Your task to perform on an android device: toggle priority inbox in the gmail app Image 0: 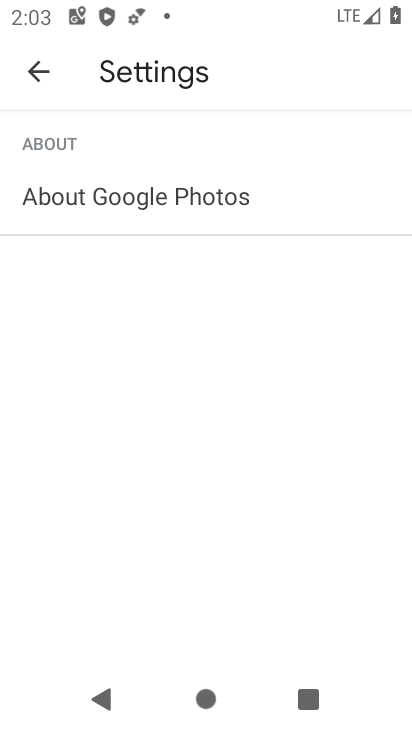
Step 0: press home button
Your task to perform on an android device: toggle priority inbox in the gmail app Image 1: 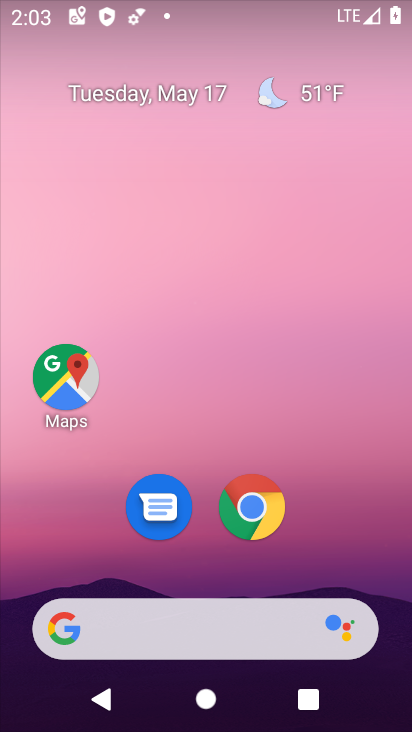
Step 1: drag from (205, 576) to (214, 50)
Your task to perform on an android device: toggle priority inbox in the gmail app Image 2: 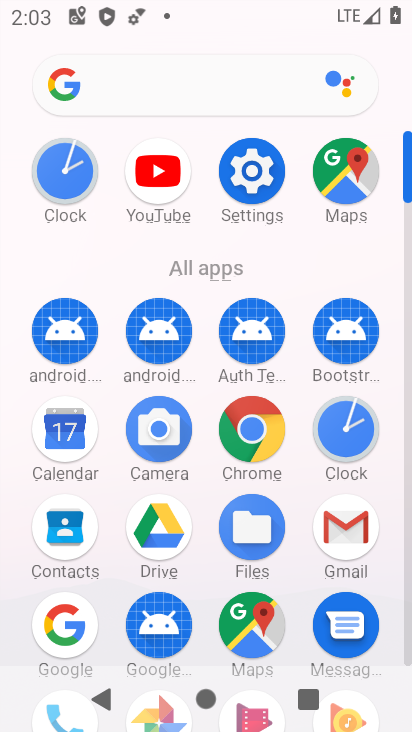
Step 2: click (357, 541)
Your task to perform on an android device: toggle priority inbox in the gmail app Image 3: 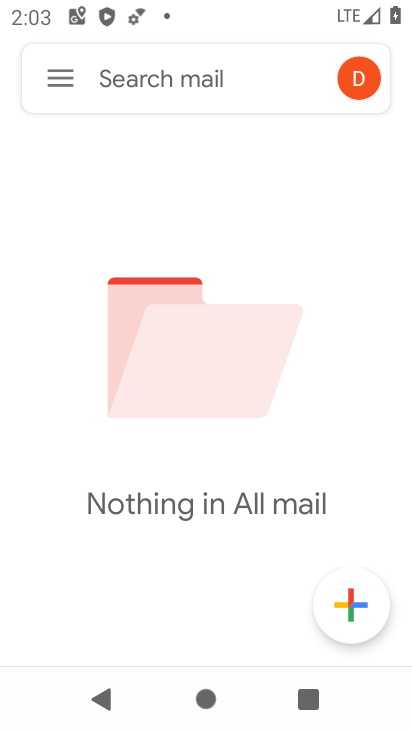
Step 3: click (70, 74)
Your task to perform on an android device: toggle priority inbox in the gmail app Image 4: 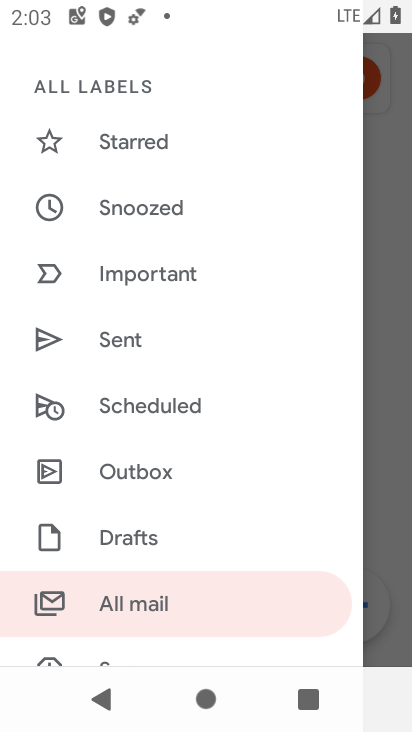
Step 4: drag from (164, 612) to (161, 173)
Your task to perform on an android device: toggle priority inbox in the gmail app Image 5: 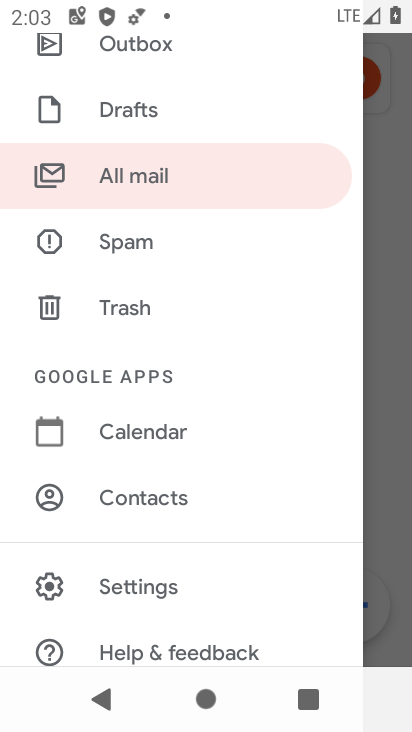
Step 5: click (128, 575)
Your task to perform on an android device: toggle priority inbox in the gmail app Image 6: 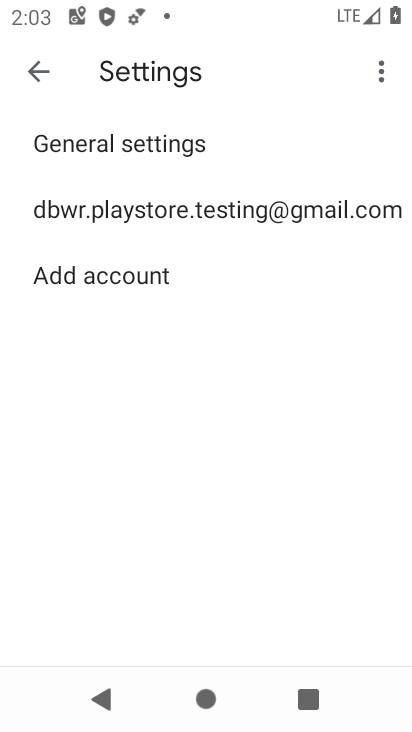
Step 6: click (342, 184)
Your task to perform on an android device: toggle priority inbox in the gmail app Image 7: 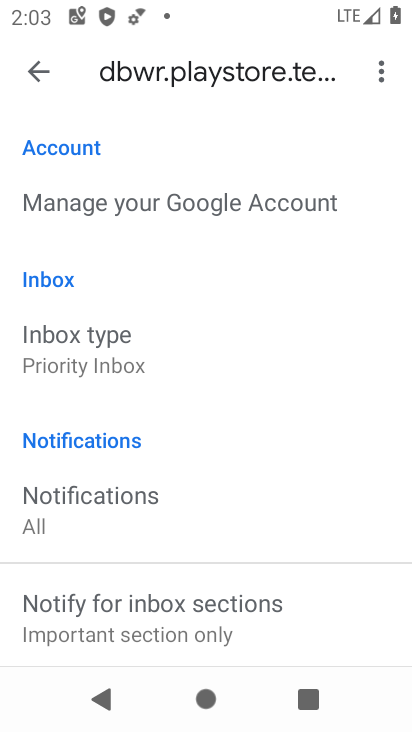
Step 7: drag from (250, 552) to (280, 310)
Your task to perform on an android device: toggle priority inbox in the gmail app Image 8: 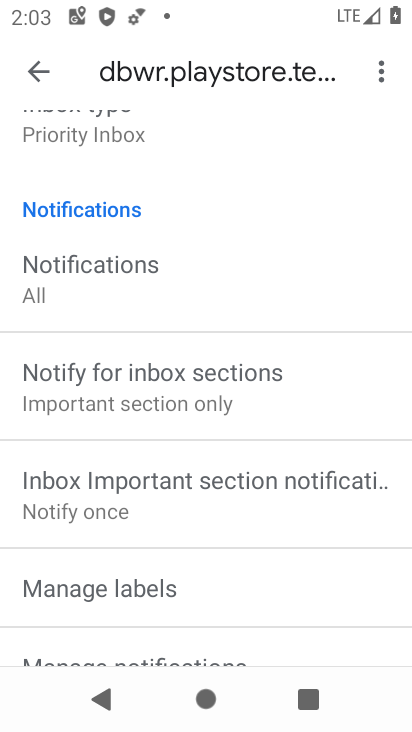
Step 8: drag from (283, 311) to (318, 379)
Your task to perform on an android device: toggle priority inbox in the gmail app Image 9: 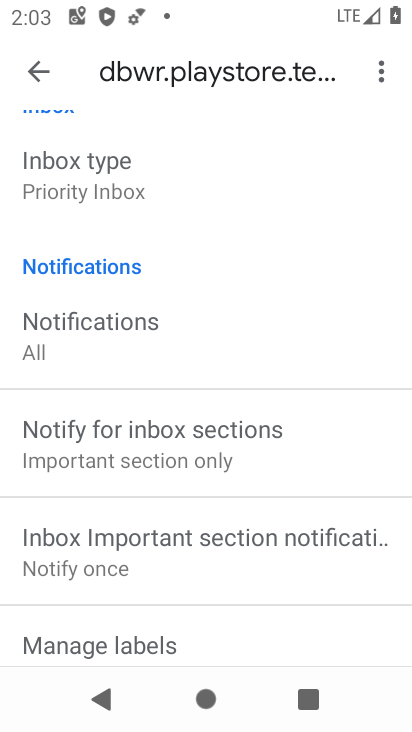
Step 9: click (228, 178)
Your task to perform on an android device: toggle priority inbox in the gmail app Image 10: 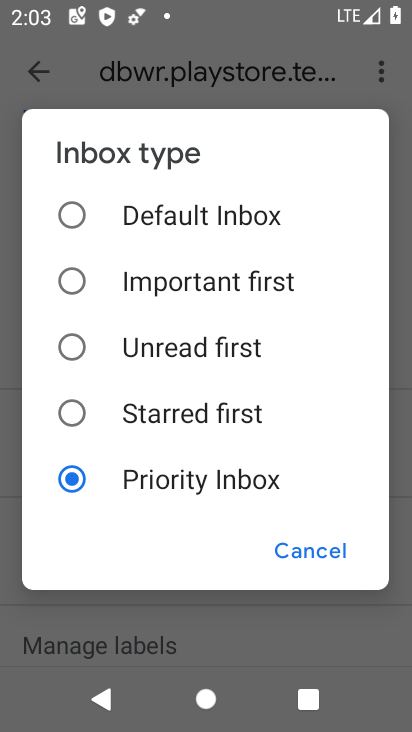
Step 10: click (221, 226)
Your task to perform on an android device: toggle priority inbox in the gmail app Image 11: 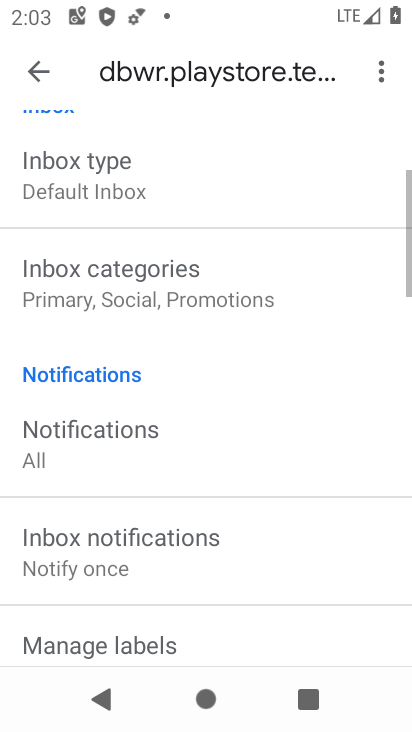
Step 11: task complete